Your task to perform on an android device: toggle wifi Image 0: 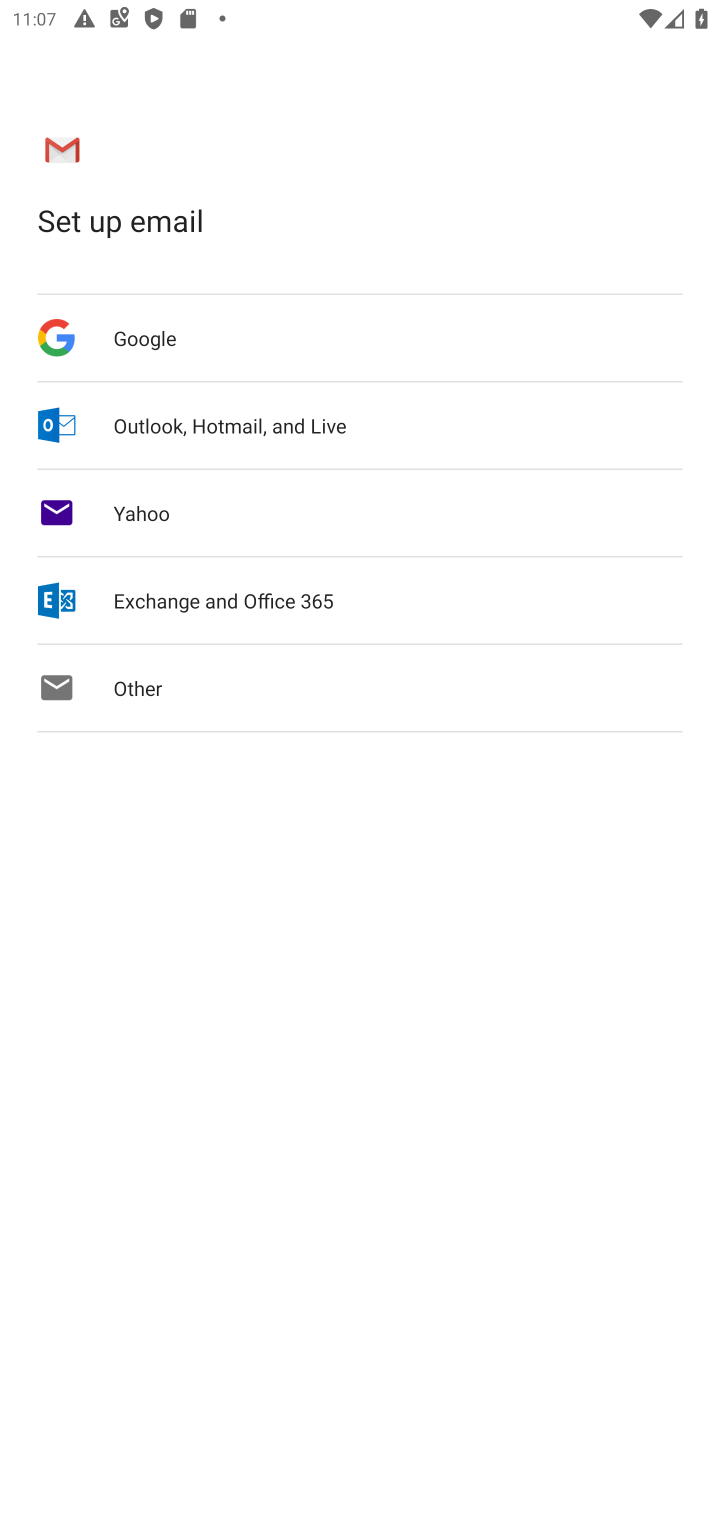
Step 0: press home button
Your task to perform on an android device: toggle wifi Image 1: 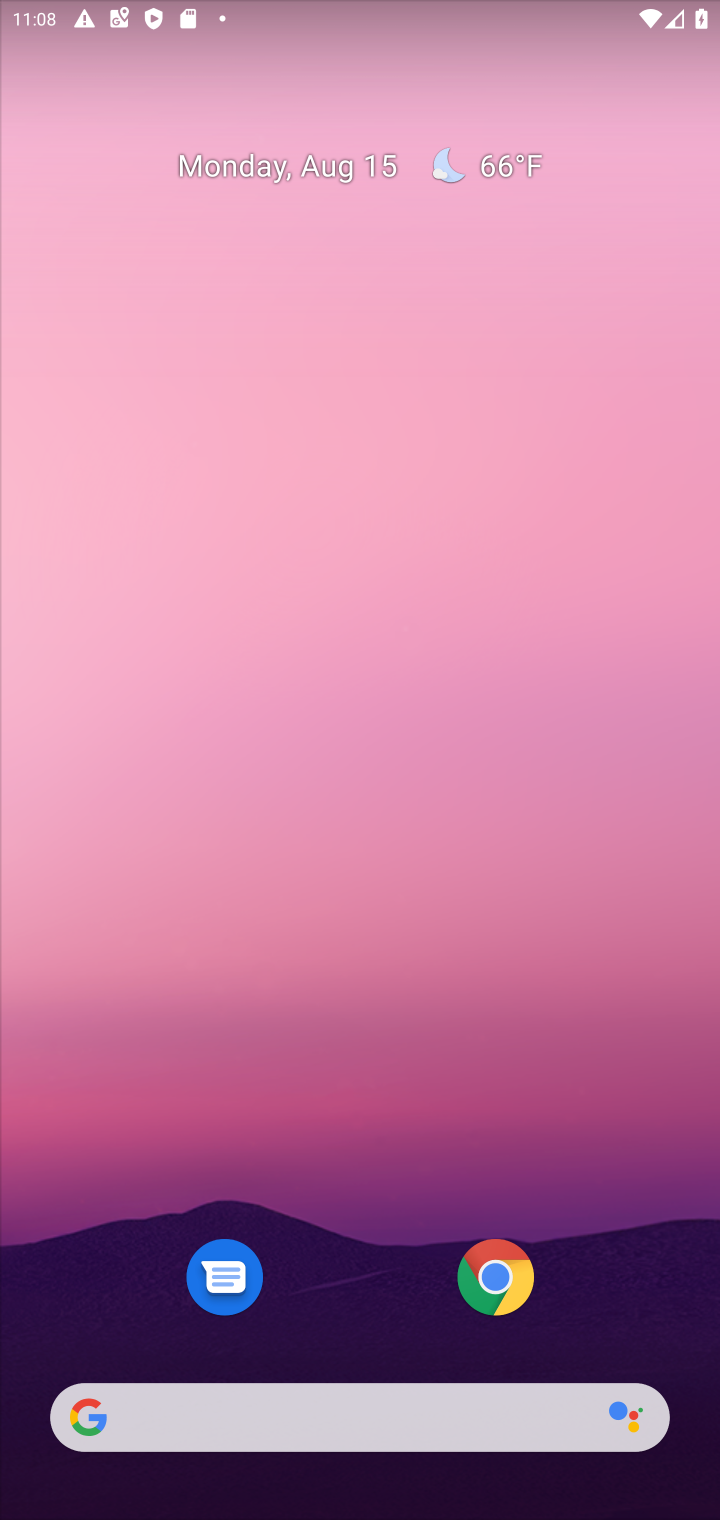
Step 1: drag from (251, 1413) to (433, 12)
Your task to perform on an android device: toggle wifi Image 2: 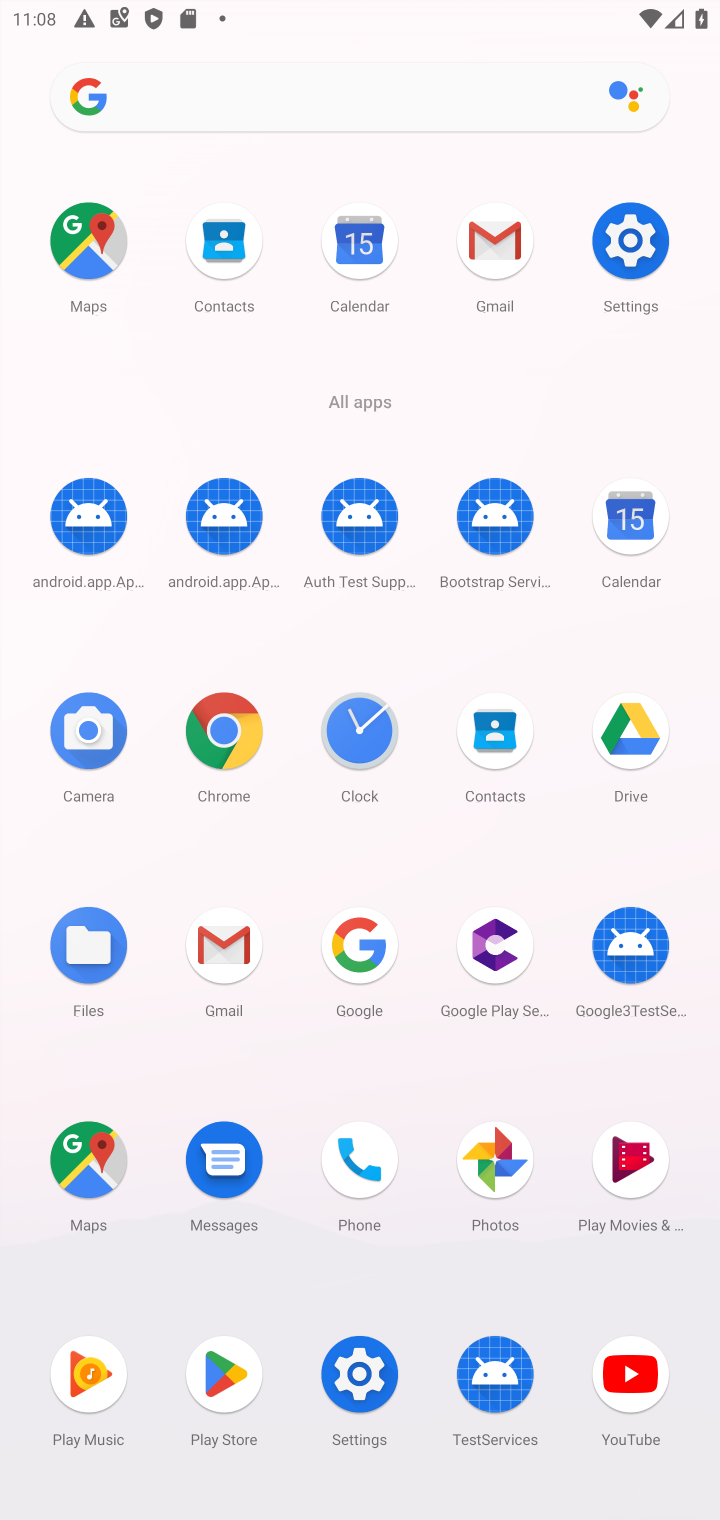
Step 2: click (643, 269)
Your task to perform on an android device: toggle wifi Image 3: 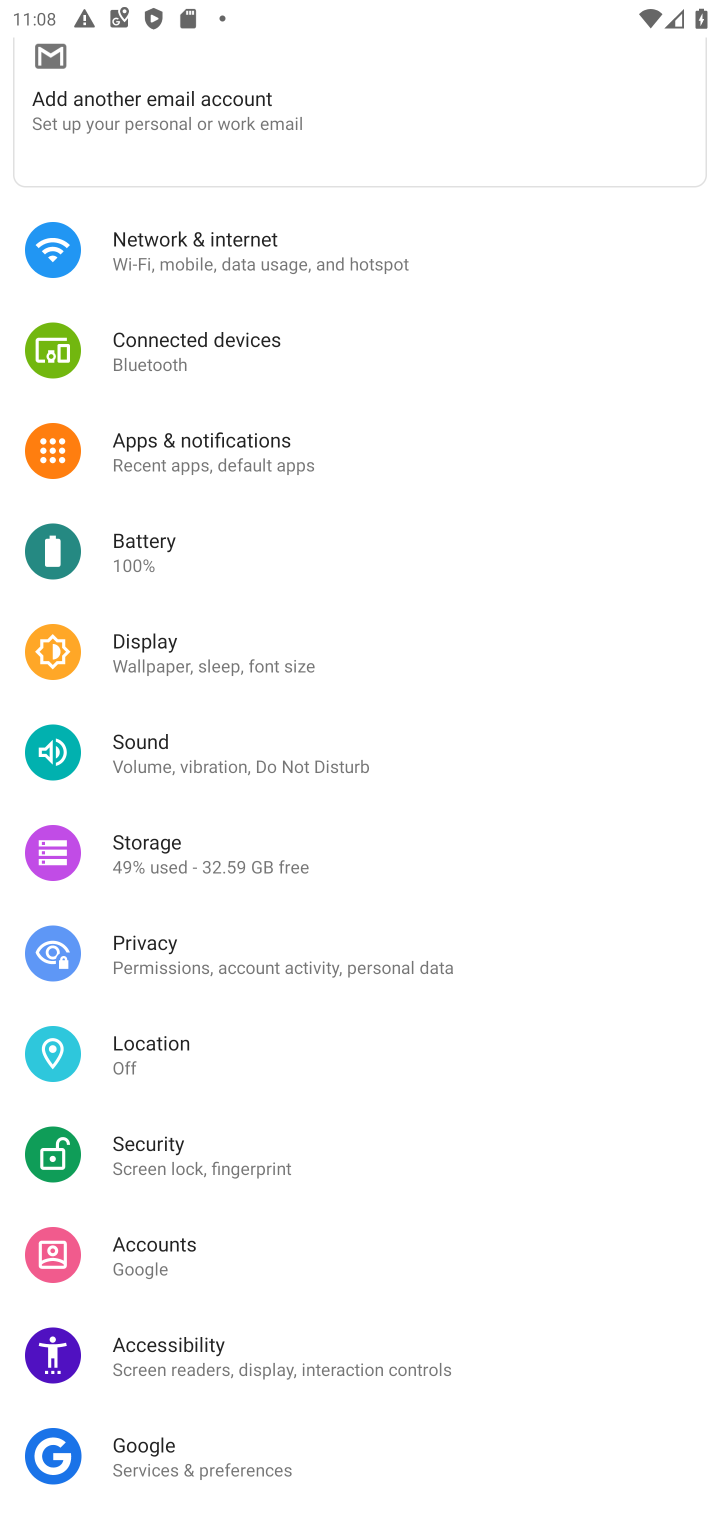
Step 3: click (307, 262)
Your task to perform on an android device: toggle wifi Image 4: 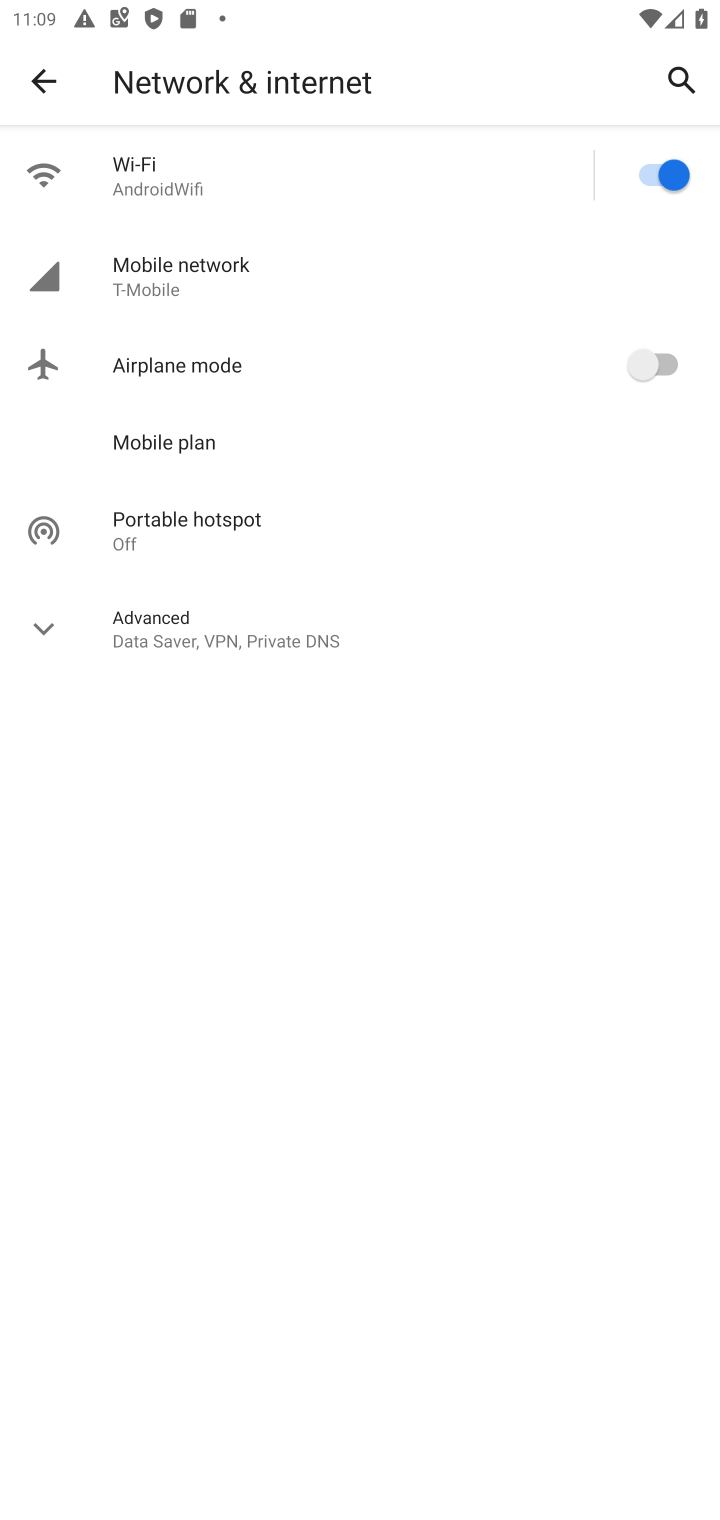
Step 4: click (673, 169)
Your task to perform on an android device: toggle wifi Image 5: 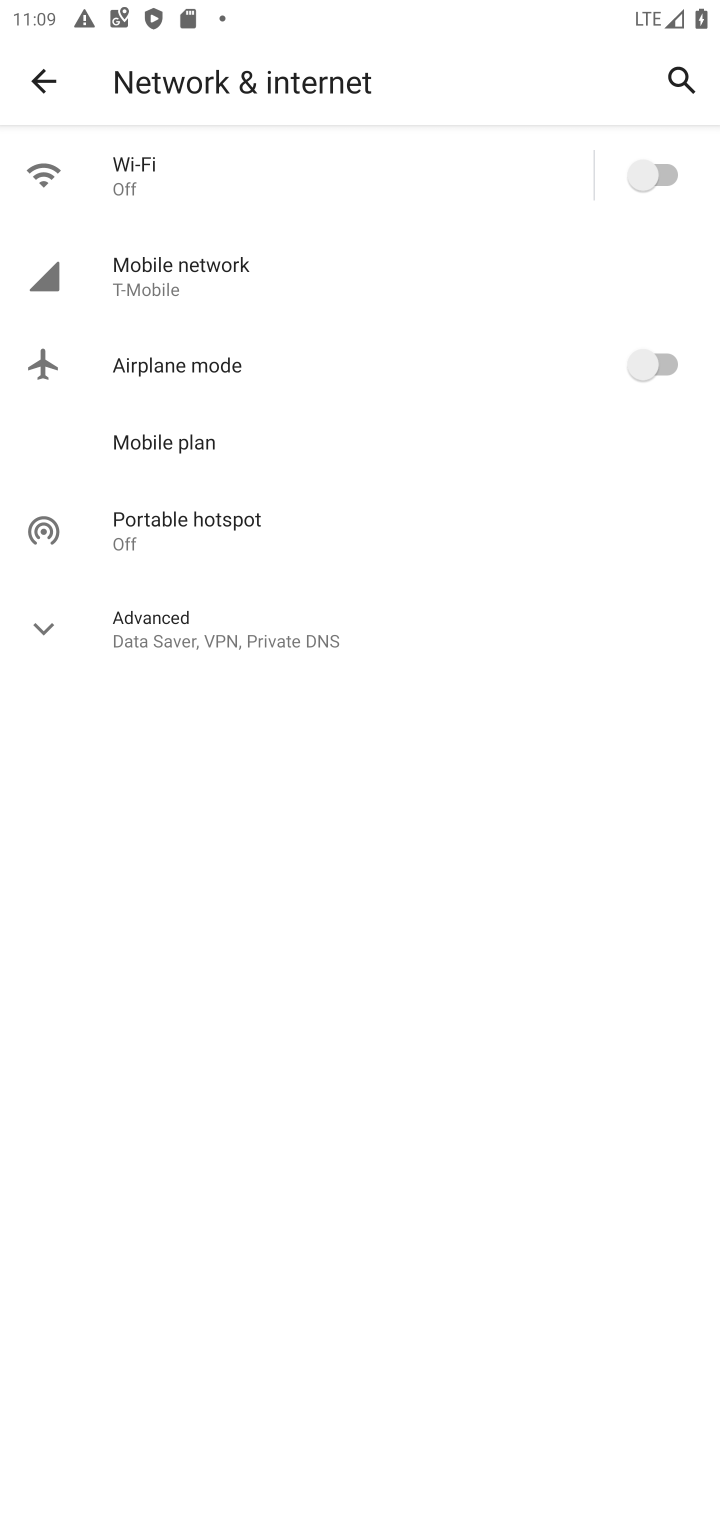
Step 5: task complete